Your task to perform on an android device: turn pop-ups off in chrome Image 0: 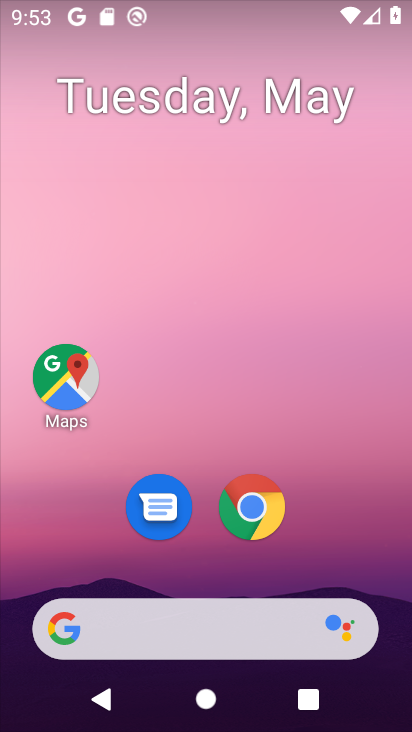
Step 0: click (264, 497)
Your task to perform on an android device: turn pop-ups off in chrome Image 1: 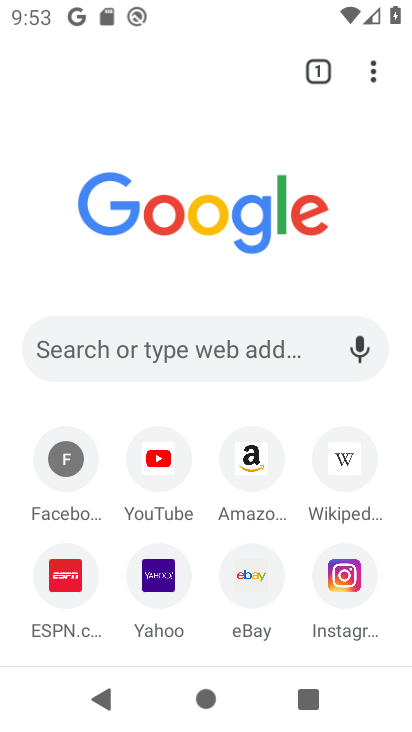
Step 1: click (373, 70)
Your task to perform on an android device: turn pop-ups off in chrome Image 2: 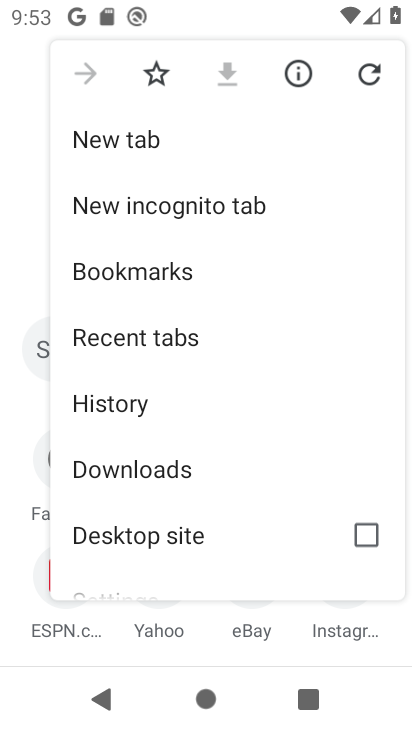
Step 2: drag from (137, 528) to (133, 166)
Your task to perform on an android device: turn pop-ups off in chrome Image 3: 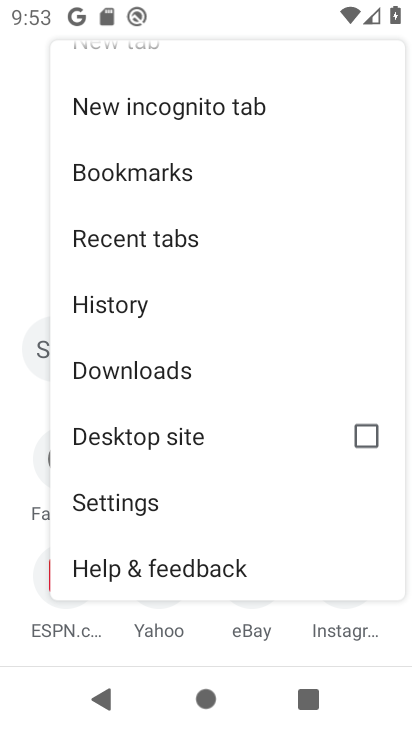
Step 3: click (88, 509)
Your task to perform on an android device: turn pop-ups off in chrome Image 4: 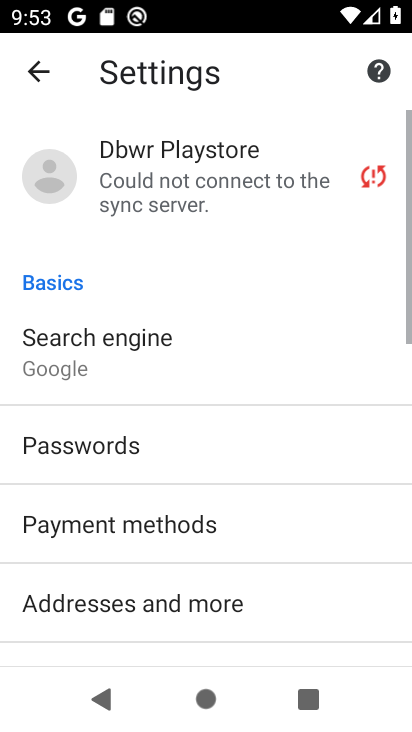
Step 4: click (88, 509)
Your task to perform on an android device: turn pop-ups off in chrome Image 5: 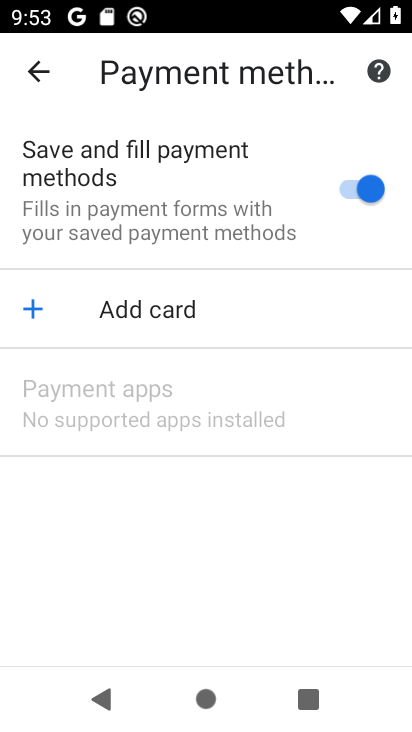
Step 5: click (30, 68)
Your task to perform on an android device: turn pop-ups off in chrome Image 6: 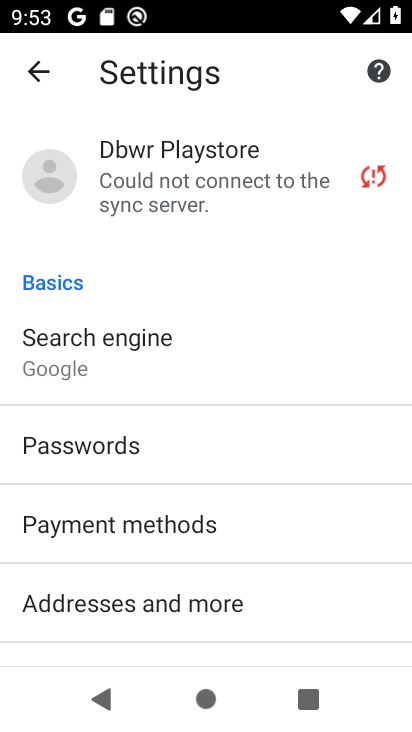
Step 6: drag from (247, 641) to (137, 32)
Your task to perform on an android device: turn pop-ups off in chrome Image 7: 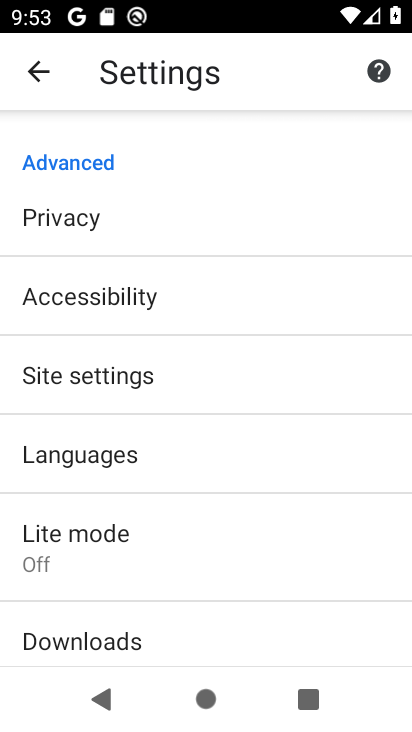
Step 7: click (122, 388)
Your task to perform on an android device: turn pop-ups off in chrome Image 8: 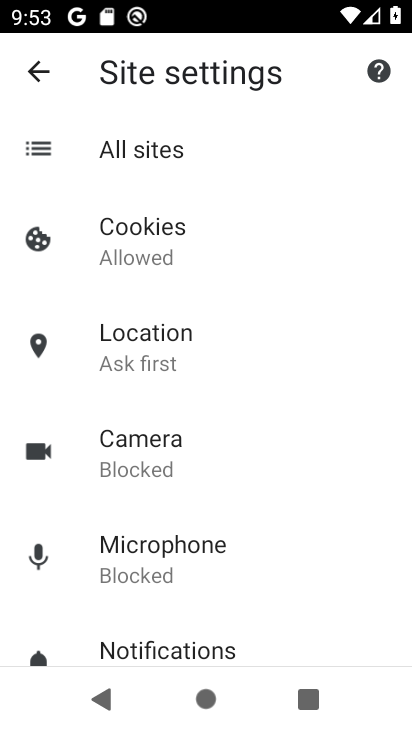
Step 8: drag from (163, 544) to (134, 123)
Your task to perform on an android device: turn pop-ups off in chrome Image 9: 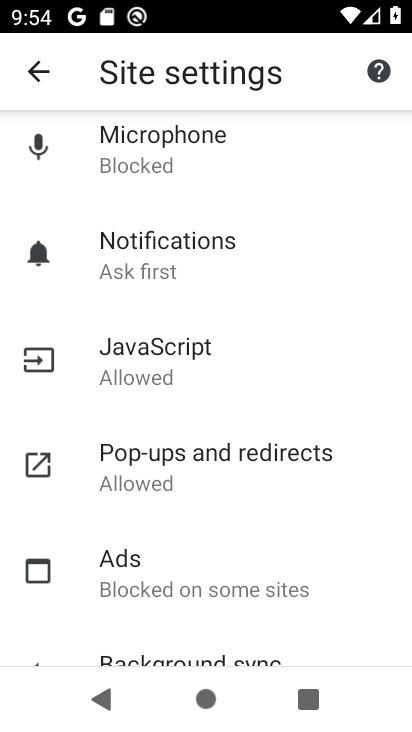
Step 9: click (130, 442)
Your task to perform on an android device: turn pop-ups off in chrome Image 10: 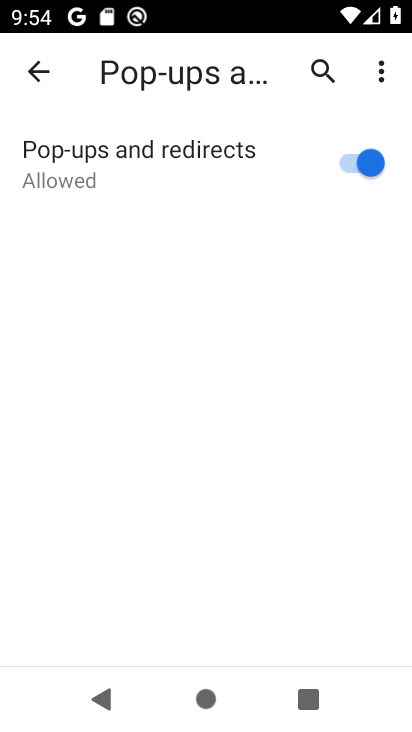
Step 10: click (374, 151)
Your task to perform on an android device: turn pop-ups off in chrome Image 11: 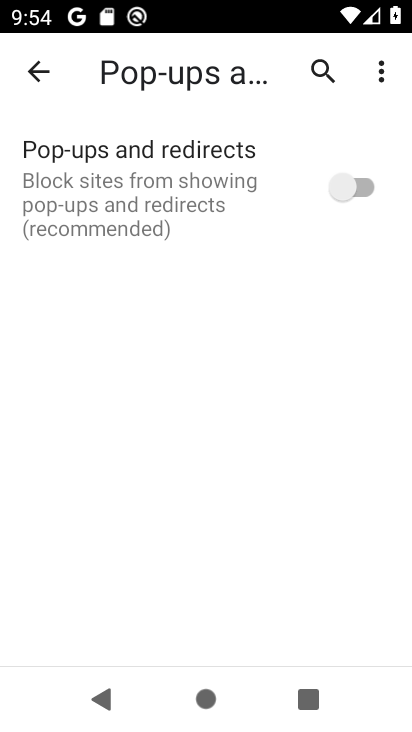
Step 11: task complete